Your task to perform on an android device: read, delete, or share a saved page in the chrome app Image 0: 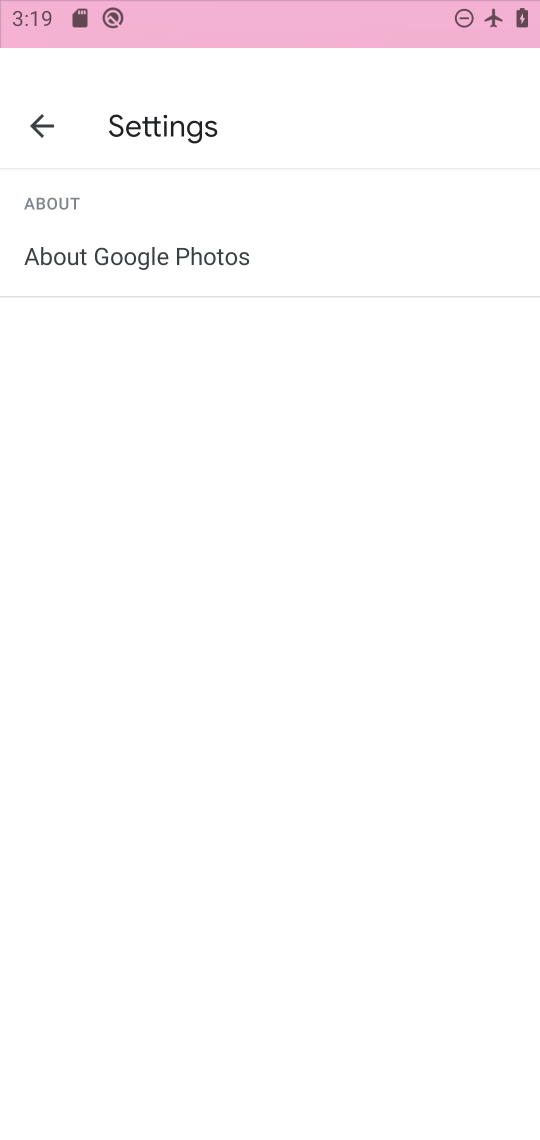
Step 0: press home button
Your task to perform on an android device: read, delete, or share a saved page in the chrome app Image 1: 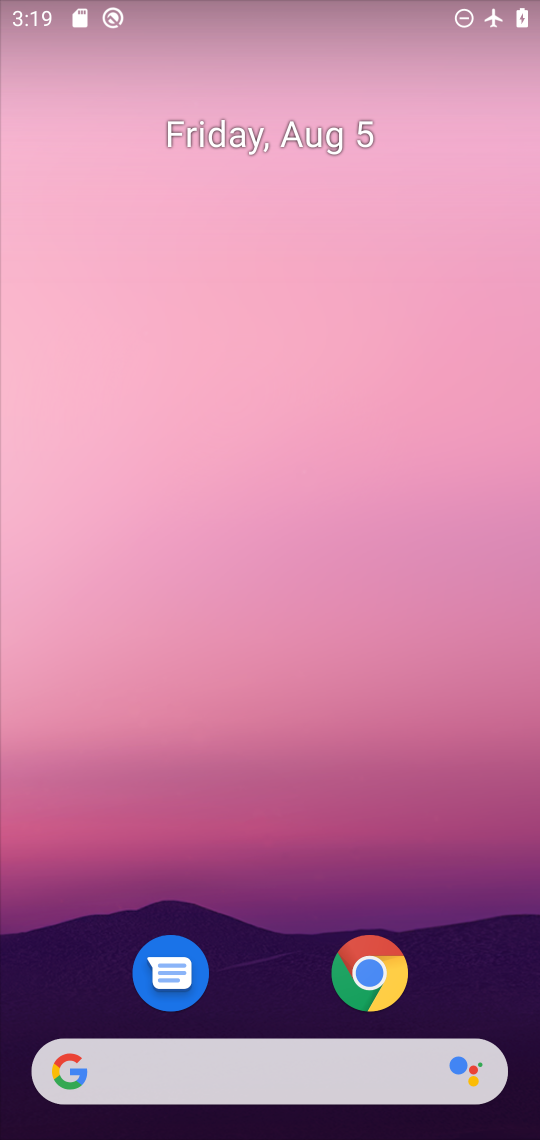
Step 1: drag from (300, 1034) to (319, 275)
Your task to perform on an android device: read, delete, or share a saved page in the chrome app Image 2: 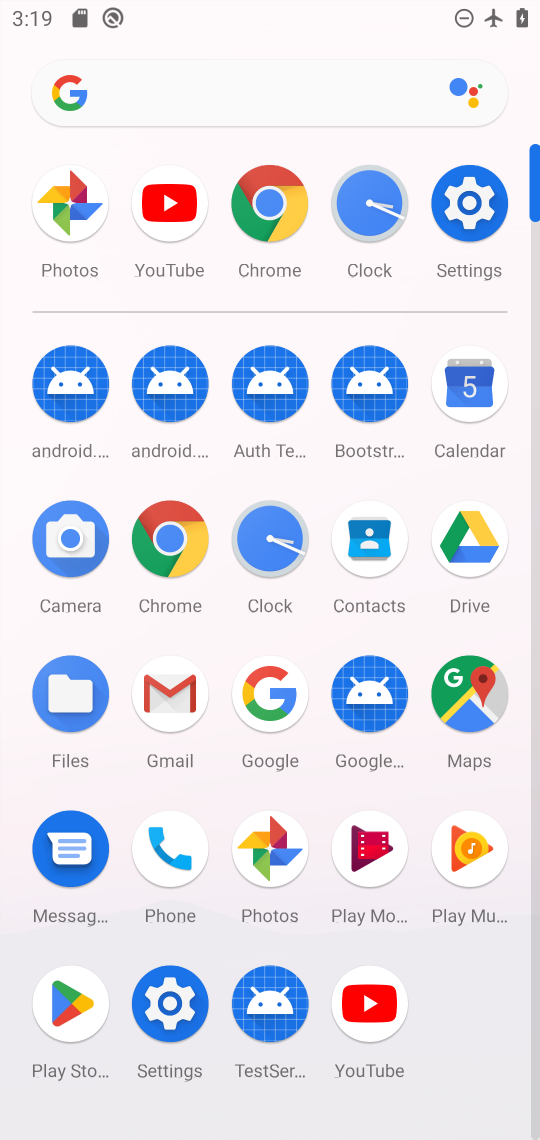
Step 2: click (139, 550)
Your task to perform on an android device: read, delete, or share a saved page in the chrome app Image 3: 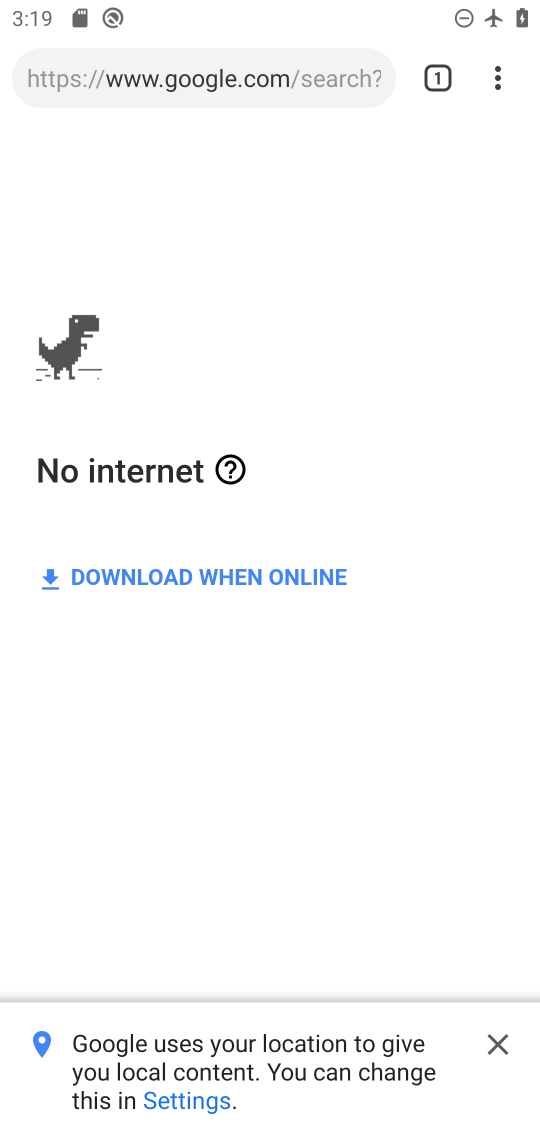
Step 3: task complete